Your task to perform on an android device: Go to sound settings Image 0: 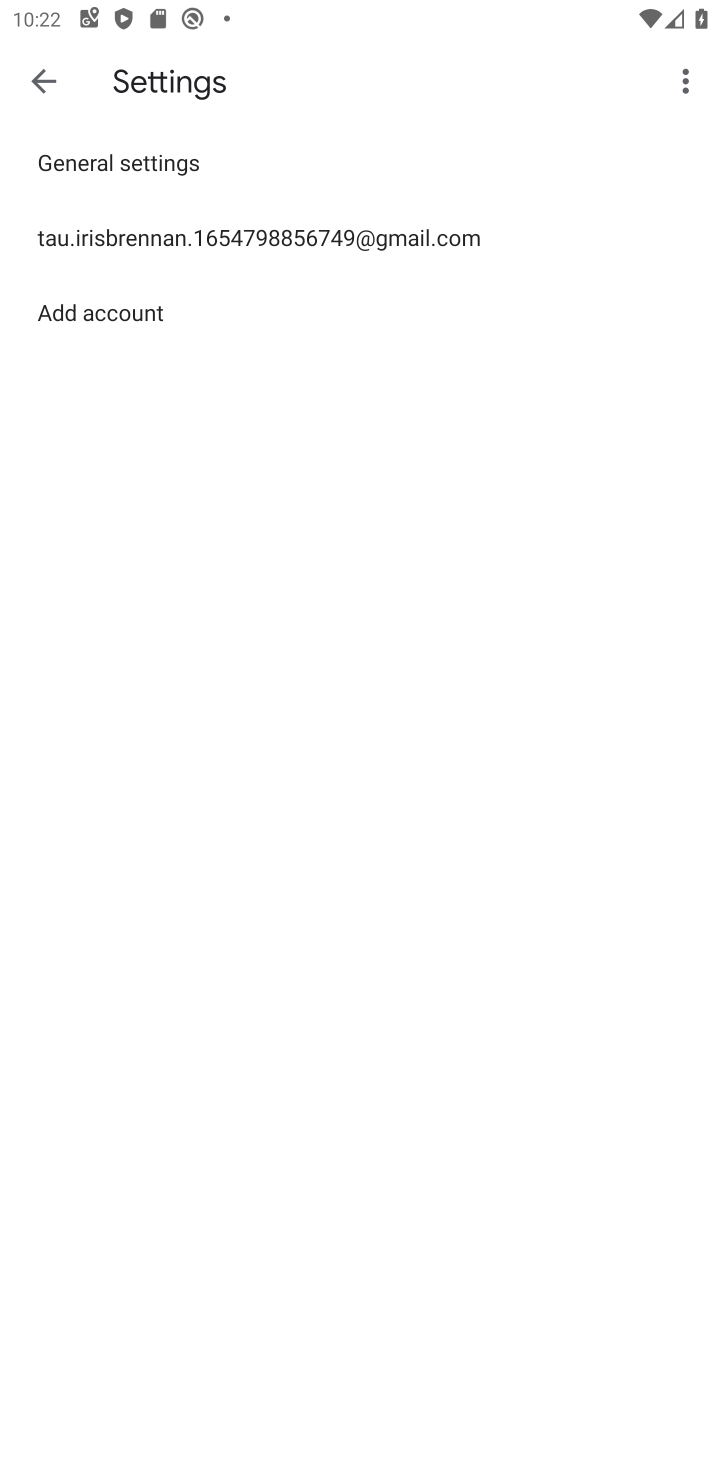
Step 0: press home button
Your task to perform on an android device: Go to sound settings Image 1: 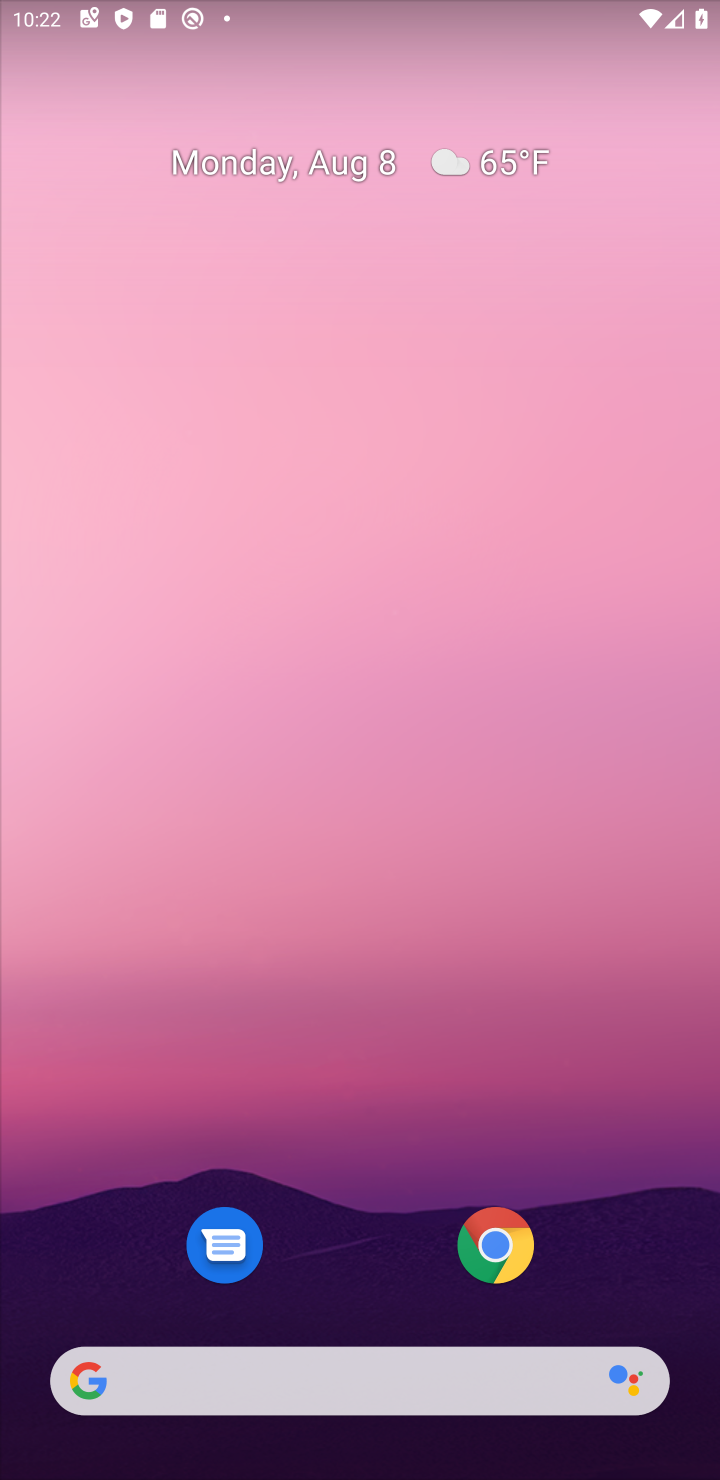
Step 1: drag from (338, 1285) to (335, 454)
Your task to perform on an android device: Go to sound settings Image 2: 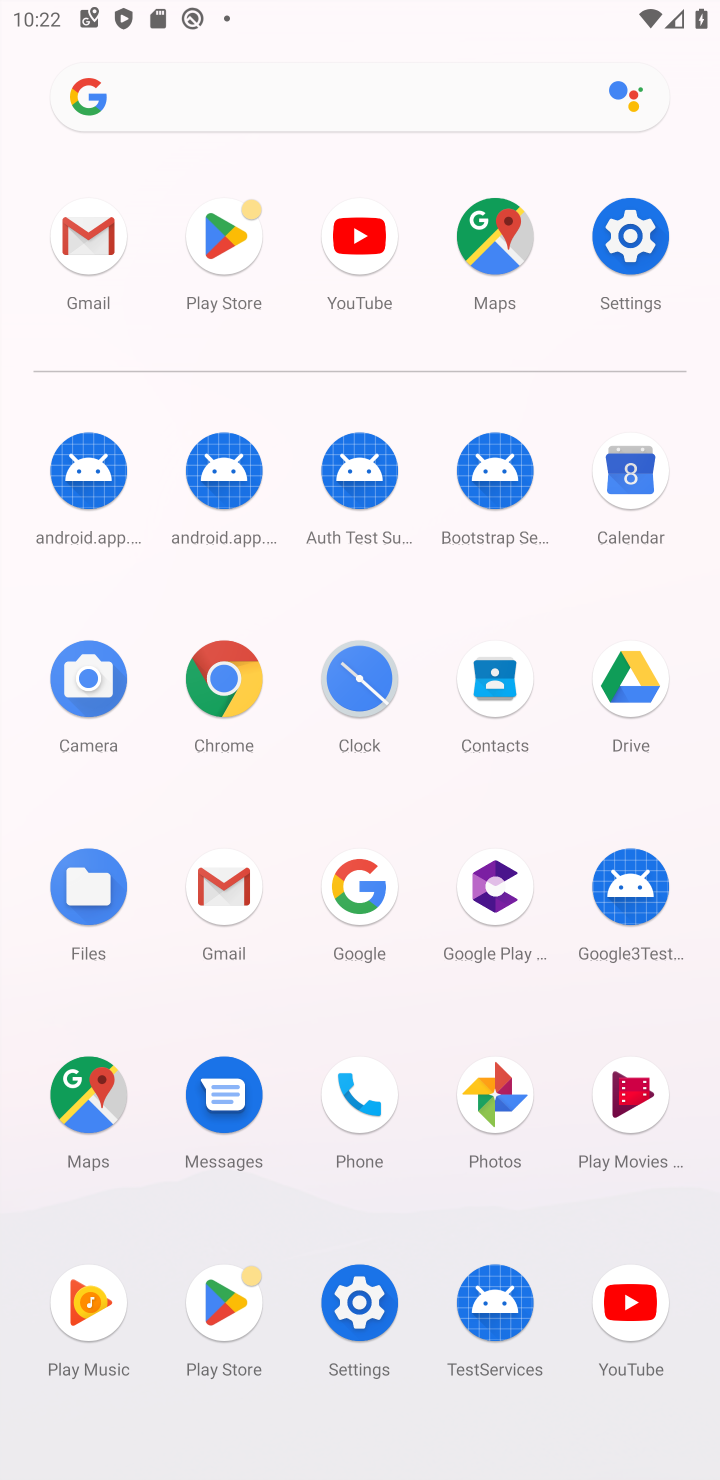
Step 2: click (359, 1295)
Your task to perform on an android device: Go to sound settings Image 3: 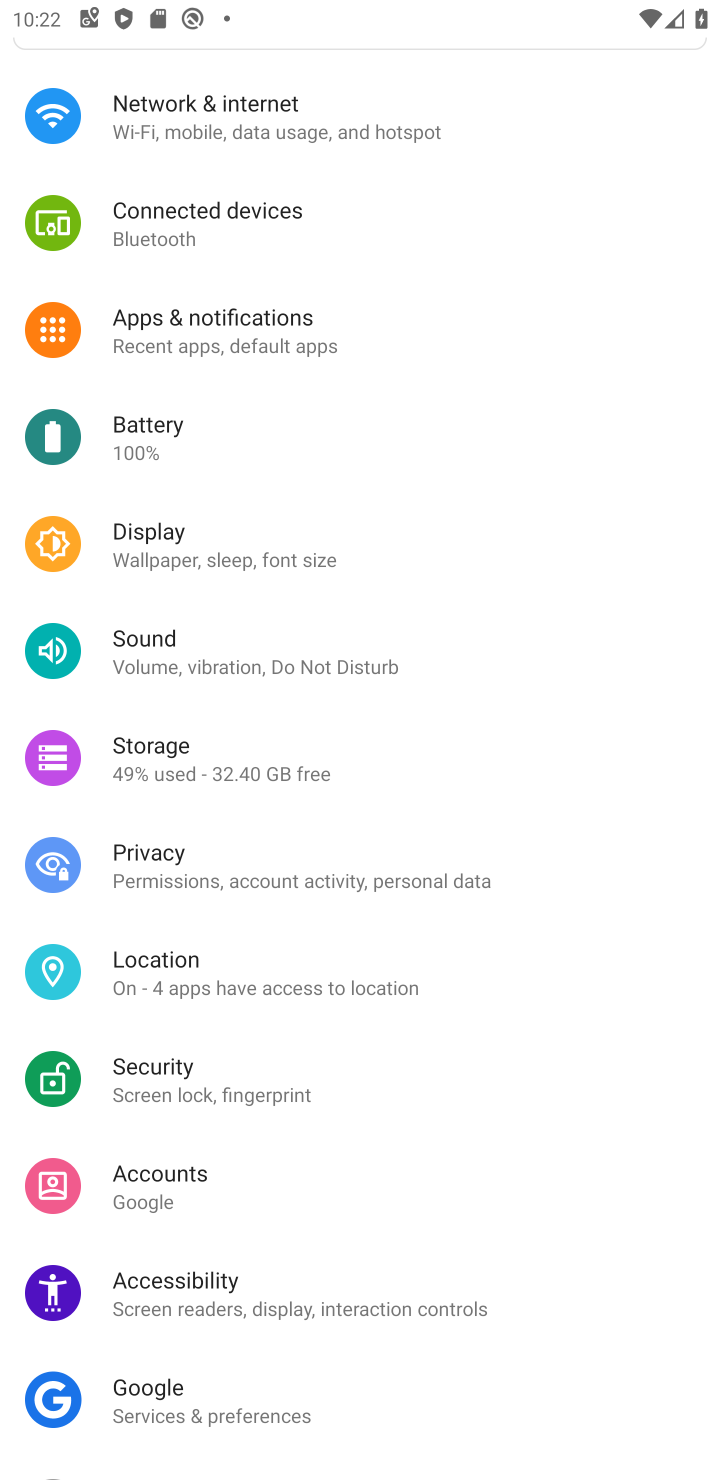
Step 3: click (160, 644)
Your task to perform on an android device: Go to sound settings Image 4: 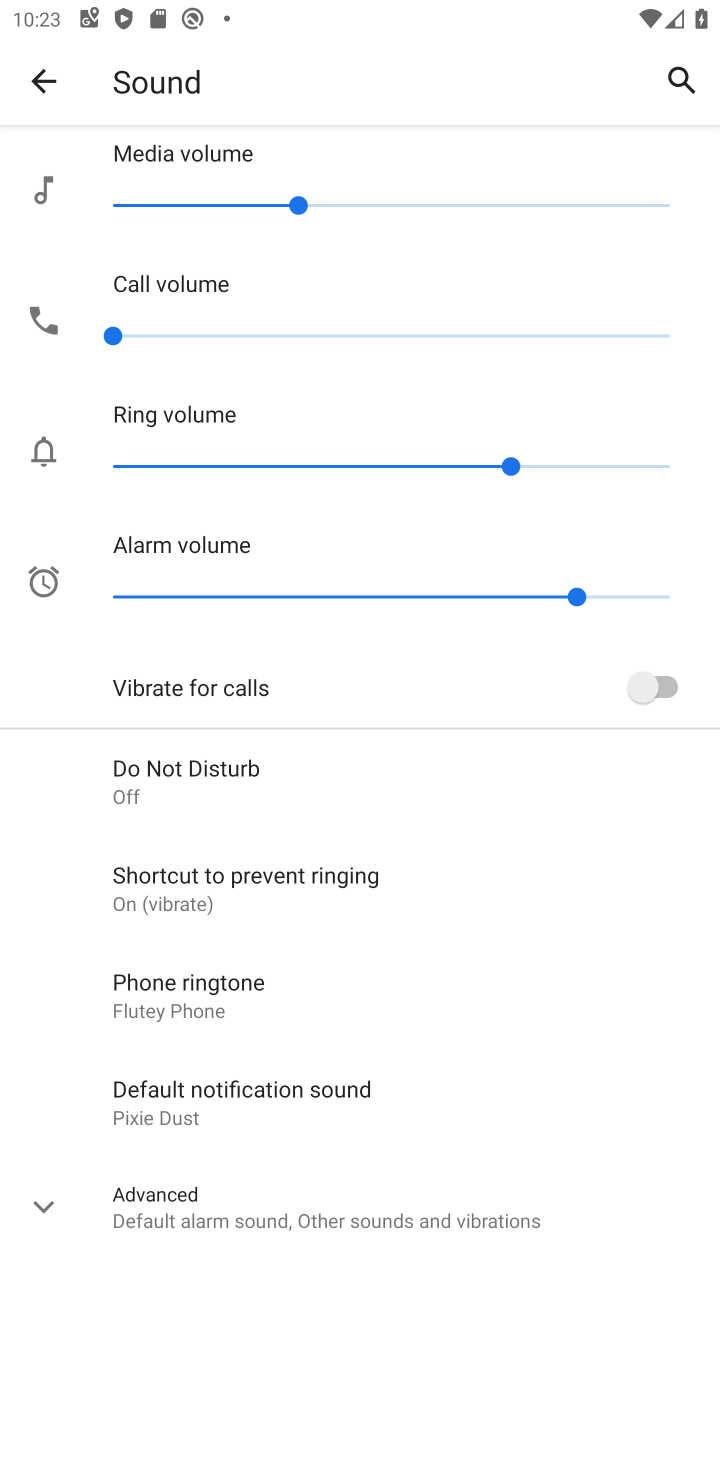
Step 4: task complete